Your task to perform on an android device: open chrome privacy settings Image 0: 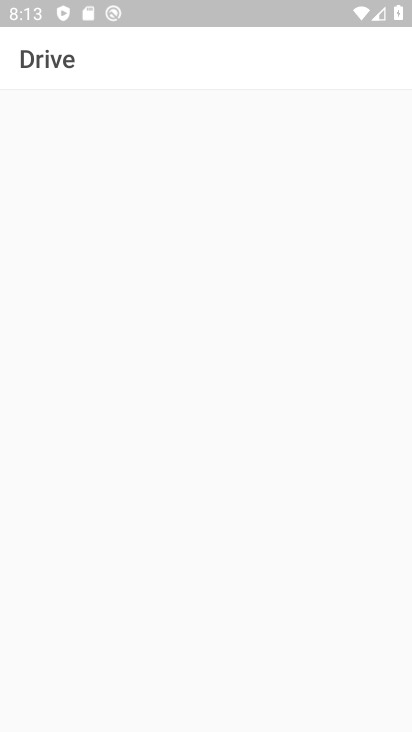
Step 0: press home button
Your task to perform on an android device: open chrome privacy settings Image 1: 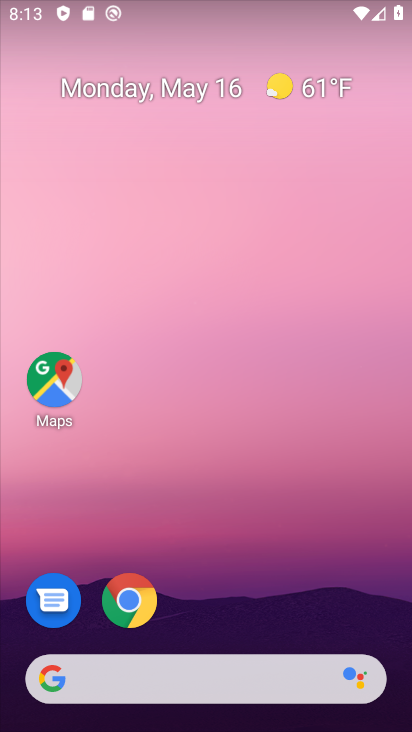
Step 1: click (133, 593)
Your task to perform on an android device: open chrome privacy settings Image 2: 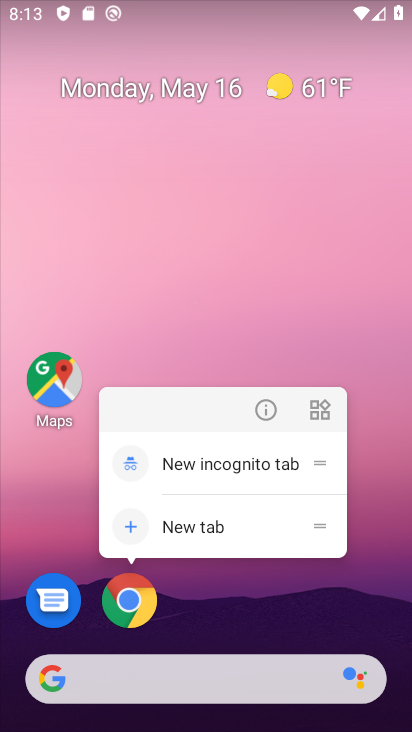
Step 2: click (130, 591)
Your task to perform on an android device: open chrome privacy settings Image 3: 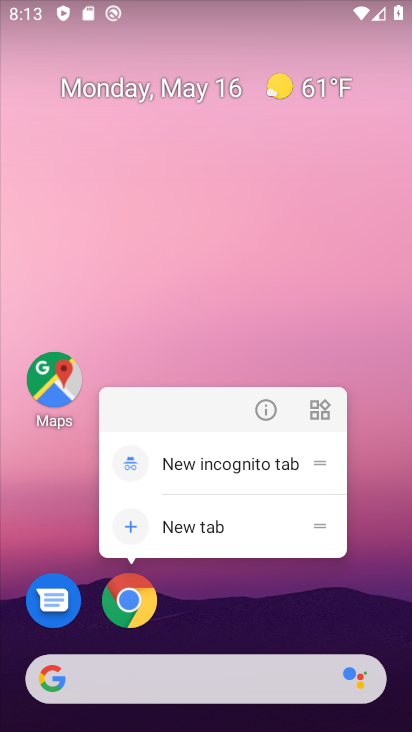
Step 3: click (130, 591)
Your task to perform on an android device: open chrome privacy settings Image 4: 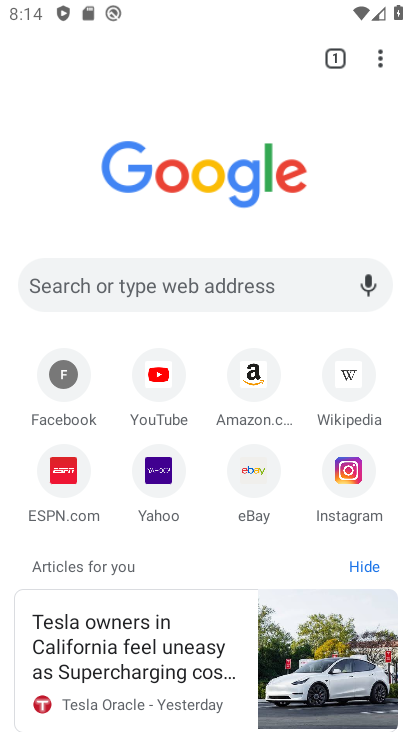
Step 4: click (379, 61)
Your task to perform on an android device: open chrome privacy settings Image 5: 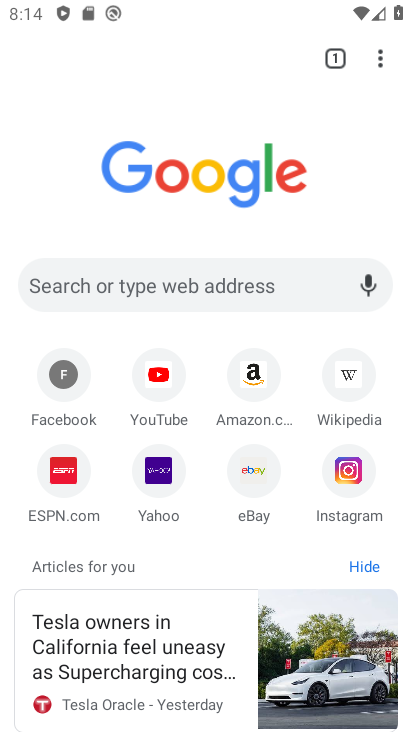
Step 5: click (381, 65)
Your task to perform on an android device: open chrome privacy settings Image 6: 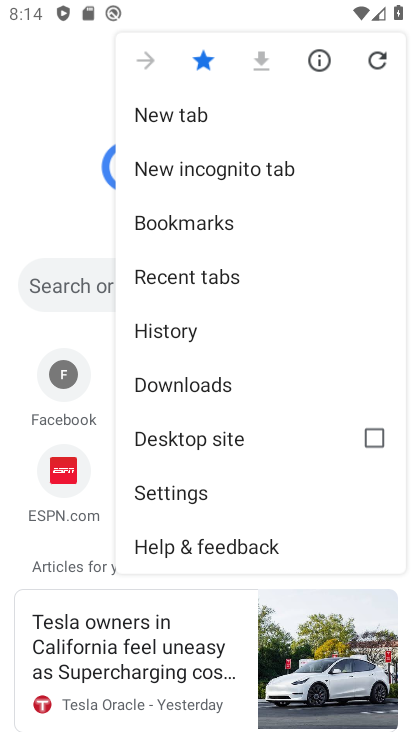
Step 6: click (226, 492)
Your task to perform on an android device: open chrome privacy settings Image 7: 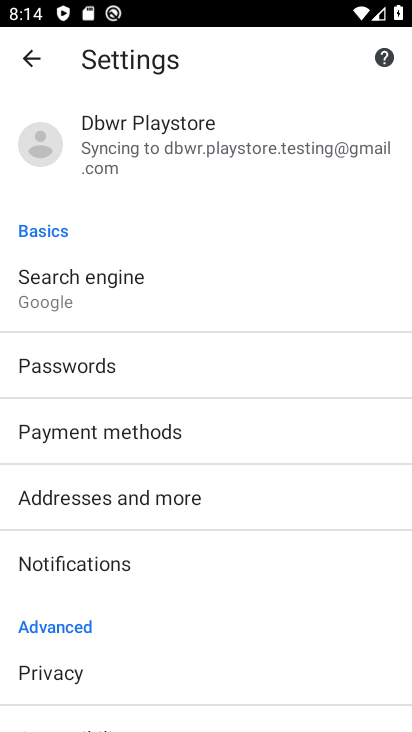
Step 7: click (68, 678)
Your task to perform on an android device: open chrome privacy settings Image 8: 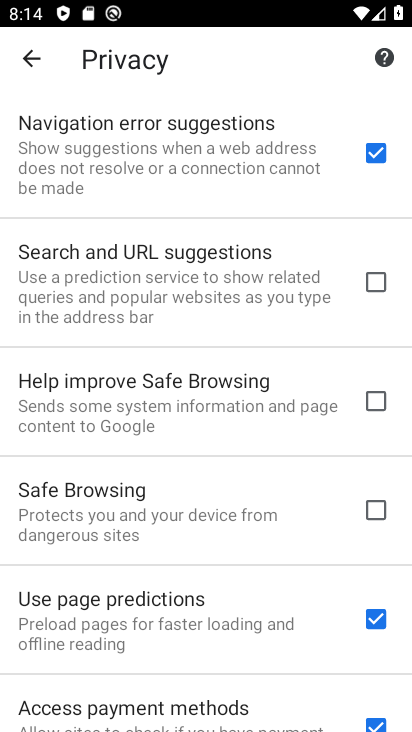
Step 8: task complete